Your task to perform on an android device: toggle javascript in the chrome app Image 0: 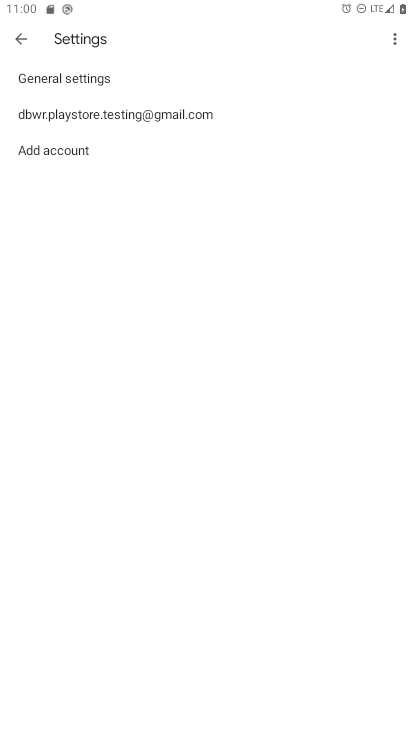
Step 0: press home button
Your task to perform on an android device: toggle javascript in the chrome app Image 1: 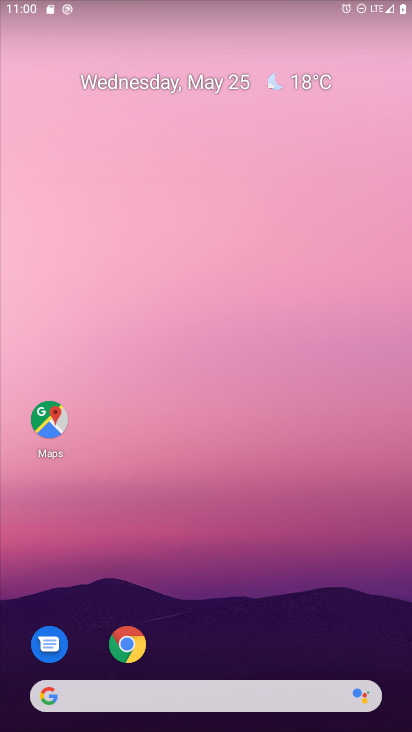
Step 1: click (135, 640)
Your task to perform on an android device: toggle javascript in the chrome app Image 2: 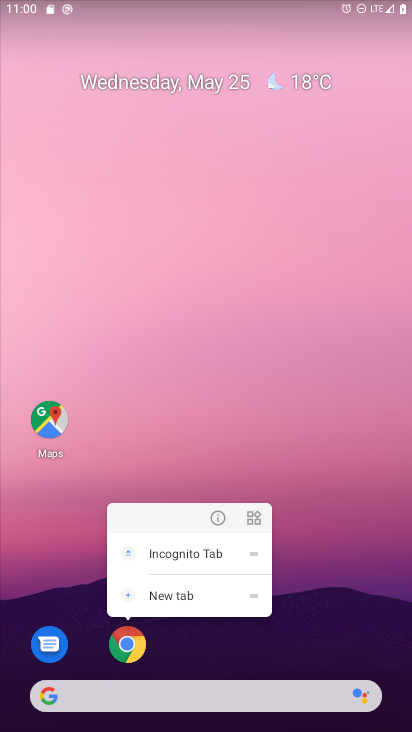
Step 2: click (124, 634)
Your task to perform on an android device: toggle javascript in the chrome app Image 3: 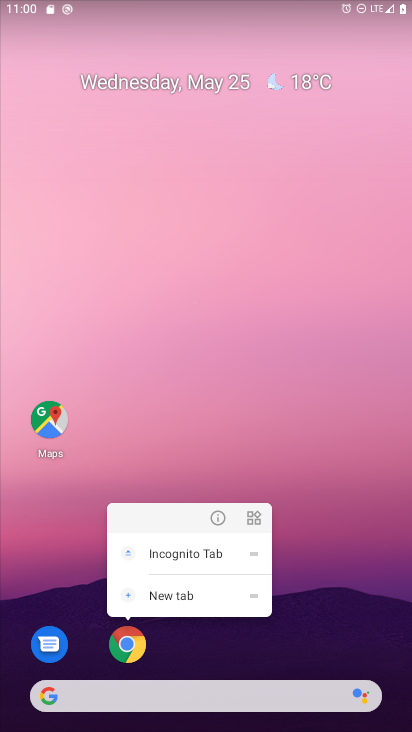
Step 3: click (152, 649)
Your task to perform on an android device: toggle javascript in the chrome app Image 4: 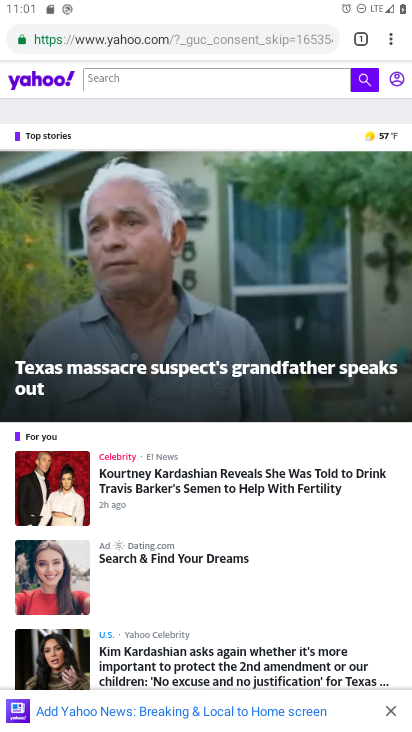
Step 4: click (389, 39)
Your task to perform on an android device: toggle javascript in the chrome app Image 5: 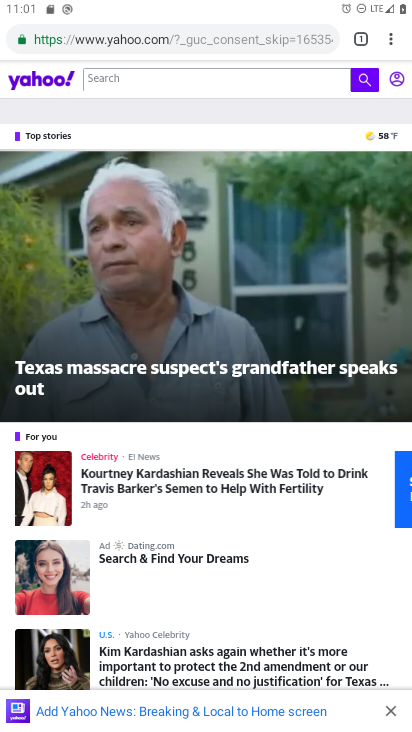
Step 5: click (389, 40)
Your task to perform on an android device: toggle javascript in the chrome app Image 6: 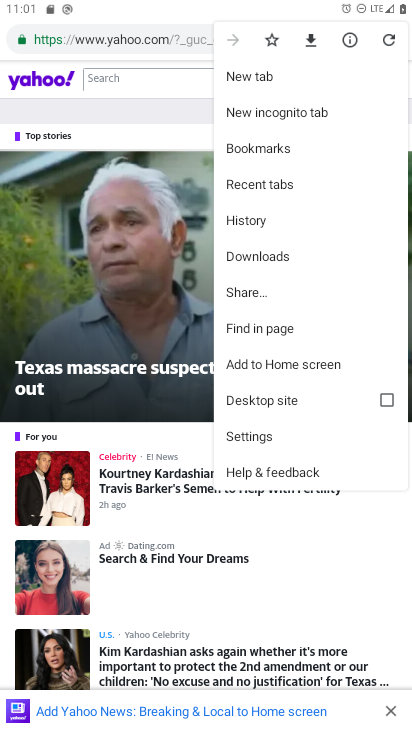
Step 6: click (285, 434)
Your task to perform on an android device: toggle javascript in the chrome app Image 7: 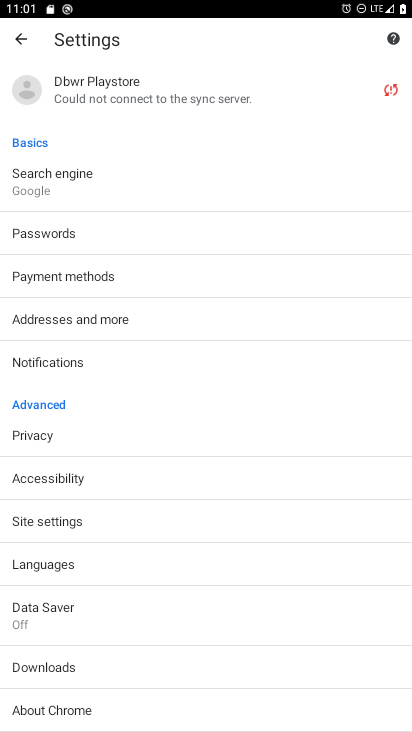
Step 7: click (89, 517)
Your task to perform on an android device: toggle javascript in the chrome app Image 8: 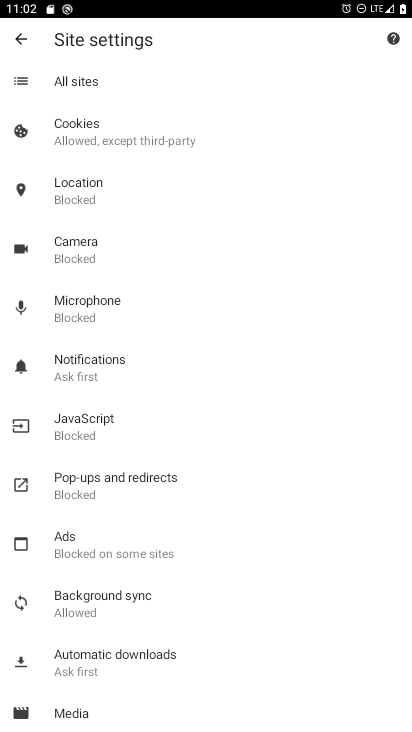
Step 8: click (115, 428)
Your task to perform on an android device: toggle javascript in the chrome app Image 9: 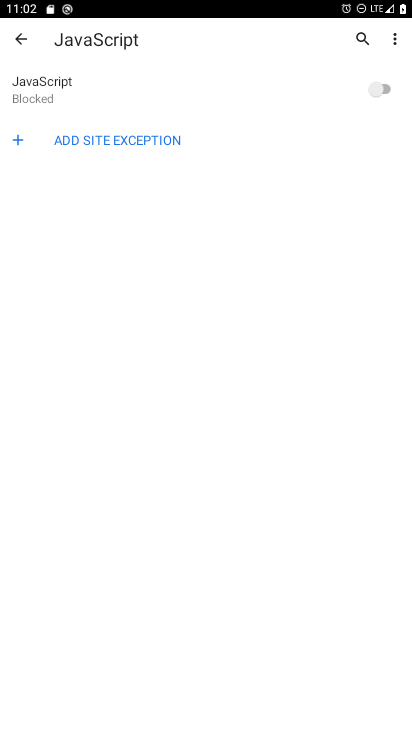
Step 9: task complete